Your task to perform on an android device: What's the weather? Image 0: 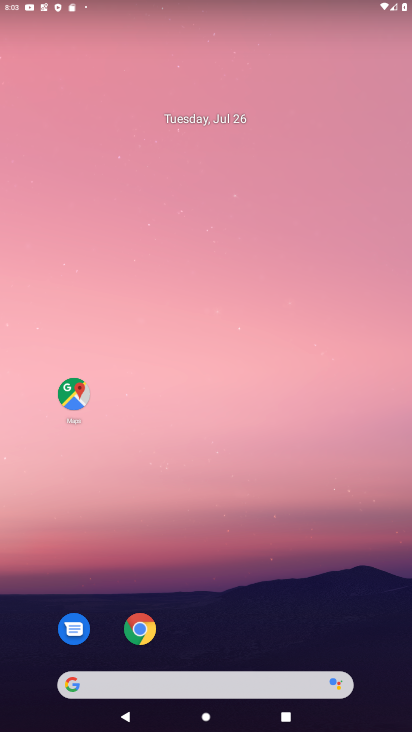
Step 0: drag from (29, 461) to (402, 443)
Your task to perform on an android device: What's the weather? Image 1: 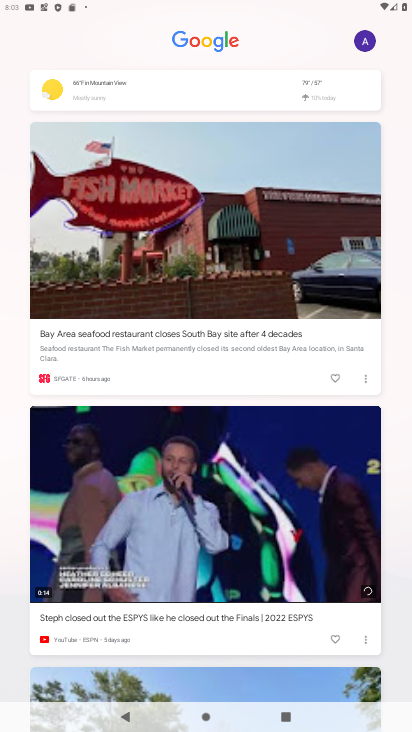
Step 1: click (283, 78)
Your task to perform on an android device: What's the weather? Image 2: 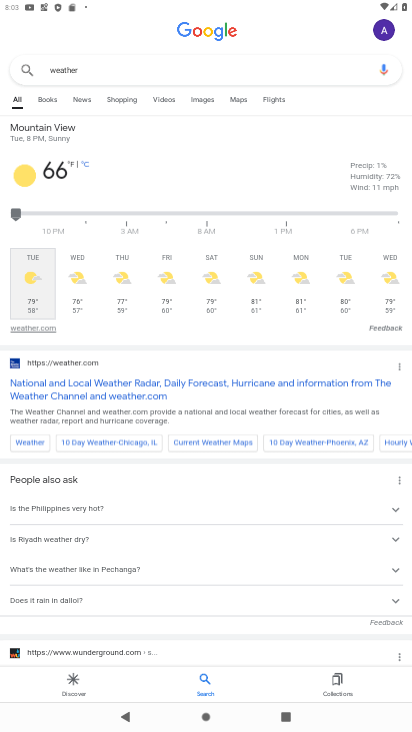
Step 2: click (22, 269)
Your task to perform on an android device: What's the weather? Image 3: 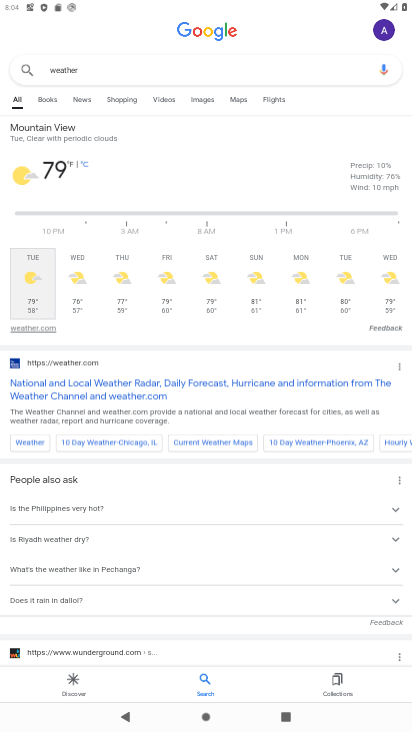
Step 3: task complete